Your task to perform on an android device: Is it going to rain tomorrow? Image 0: 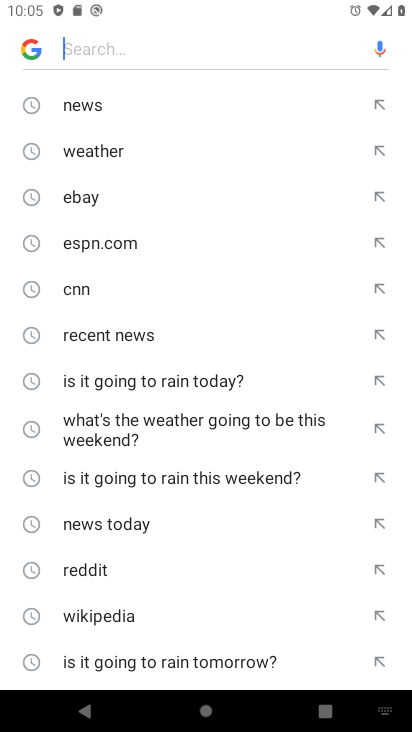
Step 0: press back button
Your task to perform on an android device: Is it going to rain tomorrow? Image 1: 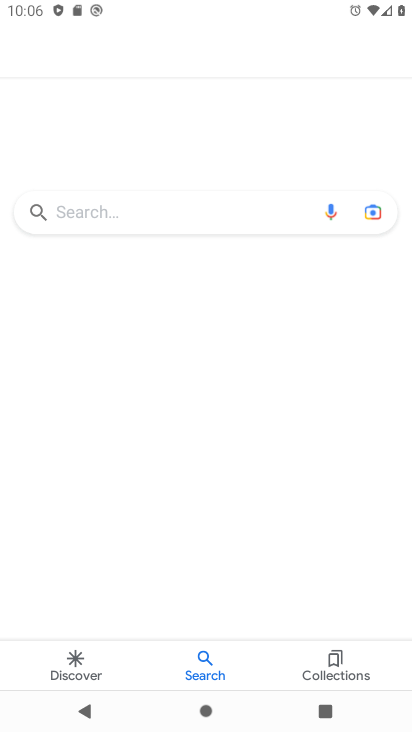
Step 1: press back button
Your task to perform on an android device: Is it going to rain tomorrow? Image 2: 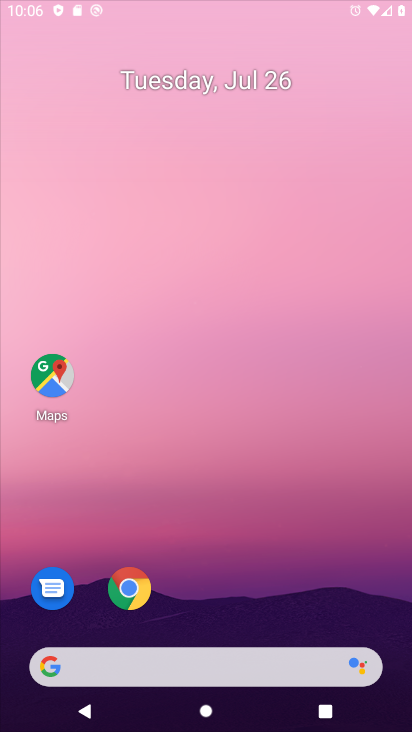
Step 2: press back button
Your task to perform on an android device: Is it going to rain tomorrow? Image 3: 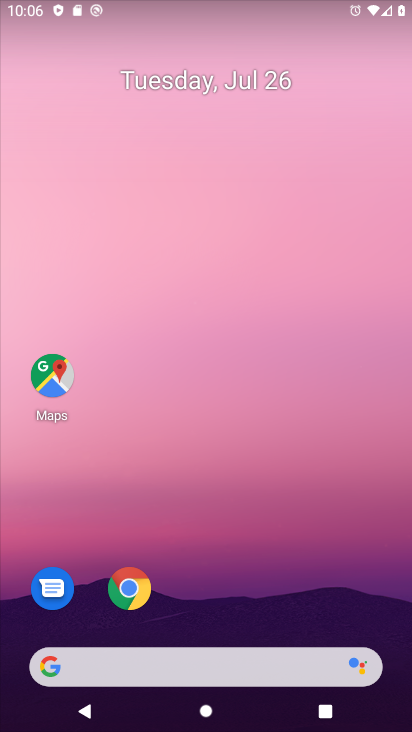
Step 3: drag from (233, 455) to (288, 11)
Your task to perform on an android device: Is it going to rain tomorrow? Image 4: 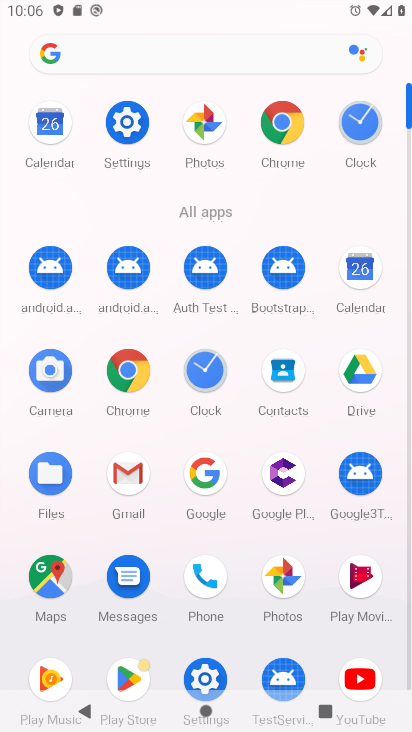
Step 4: click (127, 59)
Your task to perform on an android device: Is it going to rain tomorrow? Image 5: 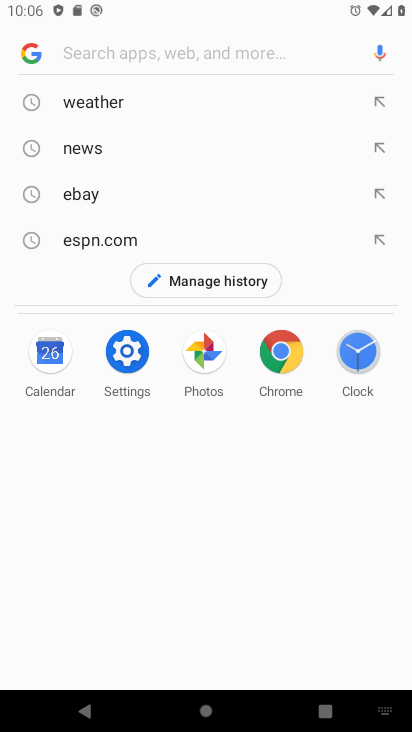
Step 5: click (108, 101)
Your task to perform on an android device: Is it going to rain tomorrow? Image 6: 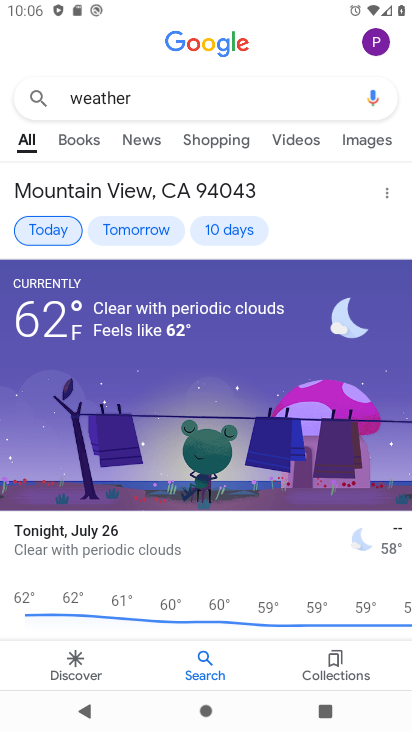
Step 6: click (127, 225)
Your task to perform on an android device: Is it going to rain tomorrow? Image 7: 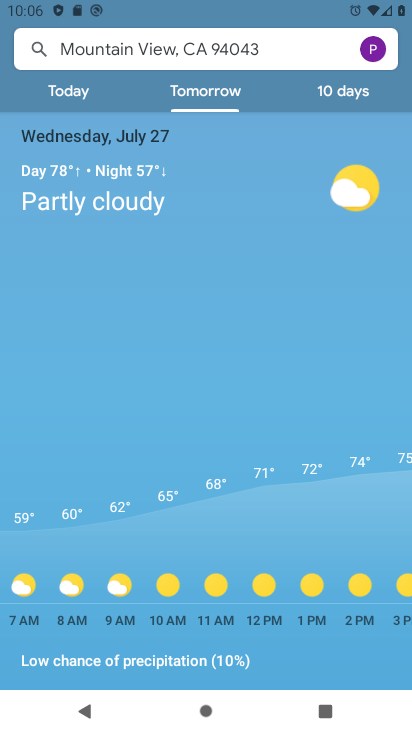
Step 7: task complete